Your task to perform on an android device: turn on bluetooth scan Image 0: 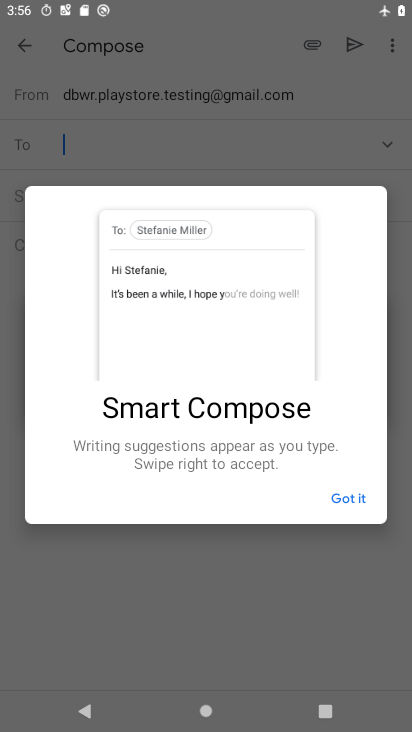
Step 0: press home button
Your task to perform on an android device: turn on bluetooth scan Image 1: 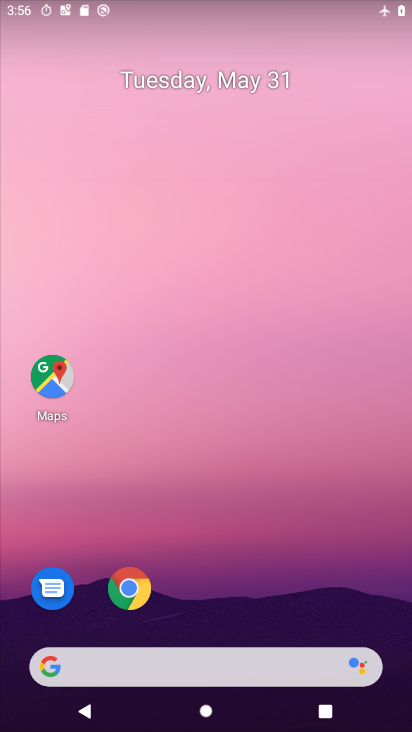
Step 1: drag from (289, 588) to (342, 124)
Your task to perform on an android device: turn on bluetooth scan Image 2: 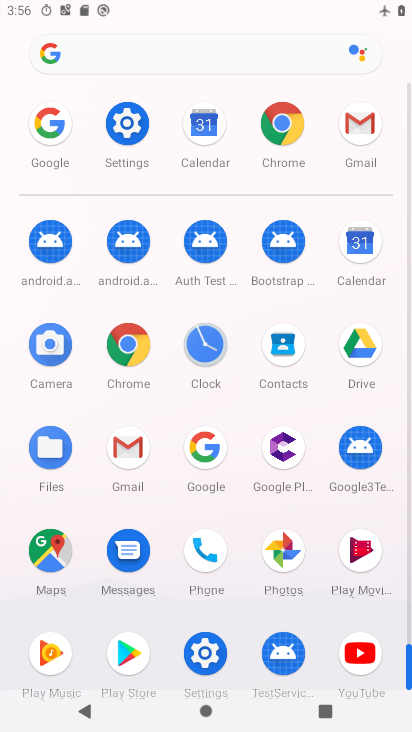
Step 2: click (137, 129)
Your task to perform on an android device: turn on bluetooth scan Image 3: 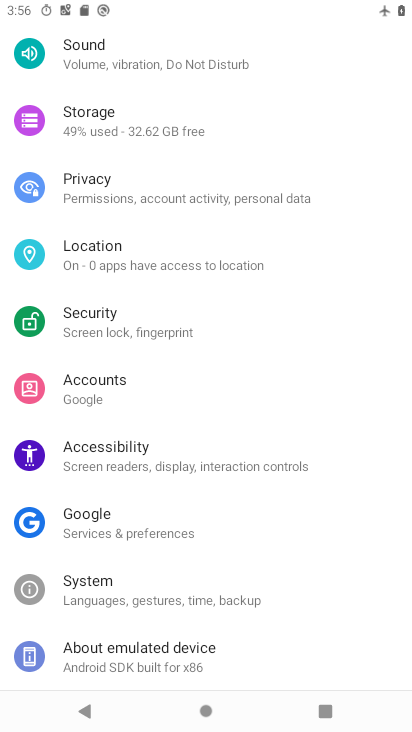
Step 3: click (210, 546)
Your task to perform on an android device: turn on bluetooth scan Image 4: 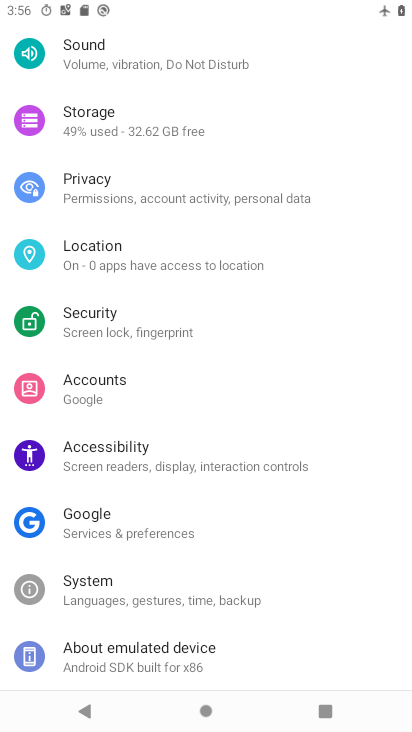
Step 4: drag from (155, 319) to (104, 608)
Your task to perform on an android device: turn on bluetooth scan Image 5: 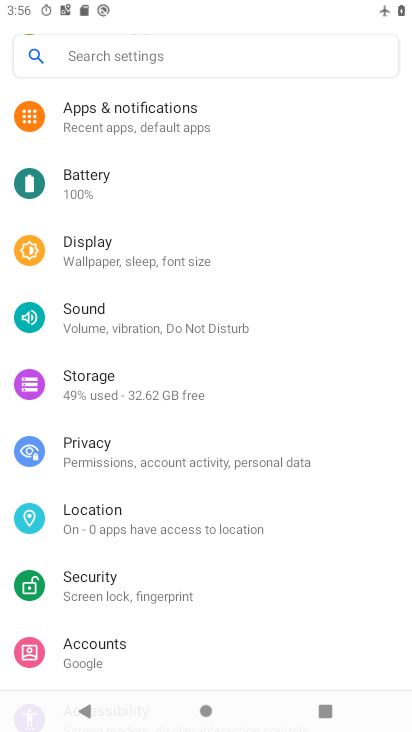
Step 5: drag from (134, 387) to (115, 514)
Your task to perform on an android device: turn on bluetooth scan Image 6: 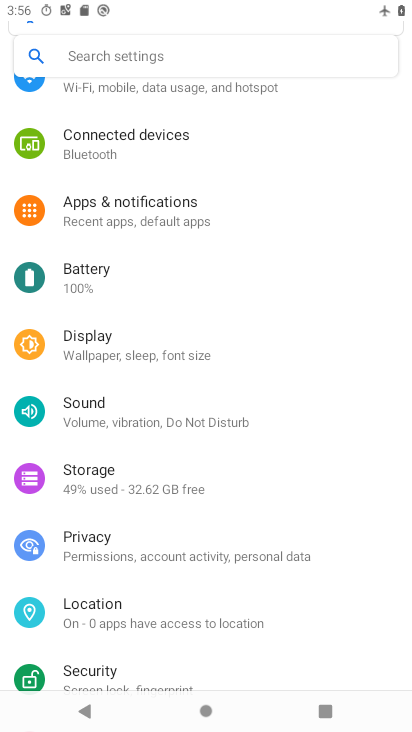
Step 6: drag from (145, 317) to (145, 471)
Your task to perform on an android device: turn on bluetooth scan Image 7: 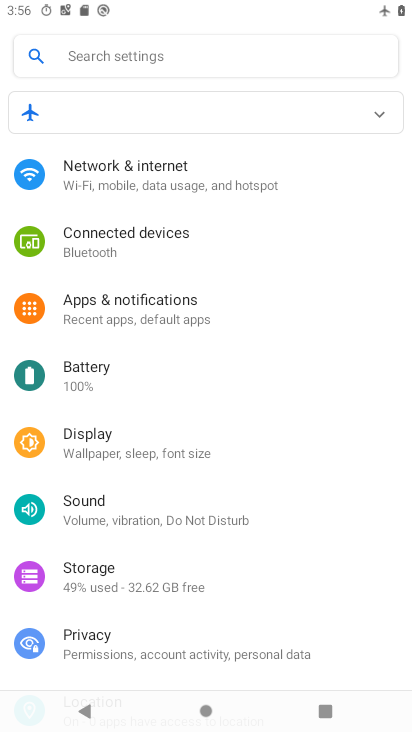
Step 7: click (178, 244)
Your task to perform on an android device: turn on bluetooth scan Image 8: 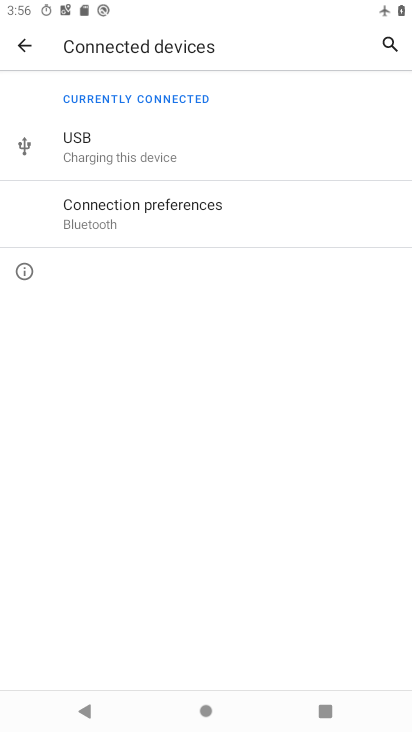
Step 8: click (176, 213)
Your task to perform on an android device: turn on bluetooth scan Image 9: 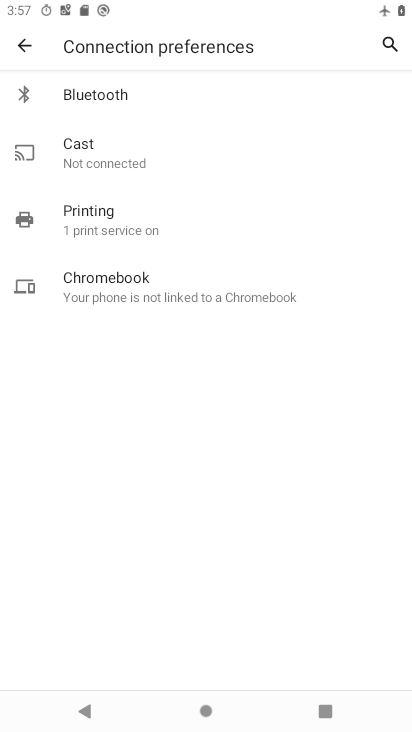
Step 9: click (142, 97)
Your task to perform on an android device: turn on bluetooth scan Image 10: 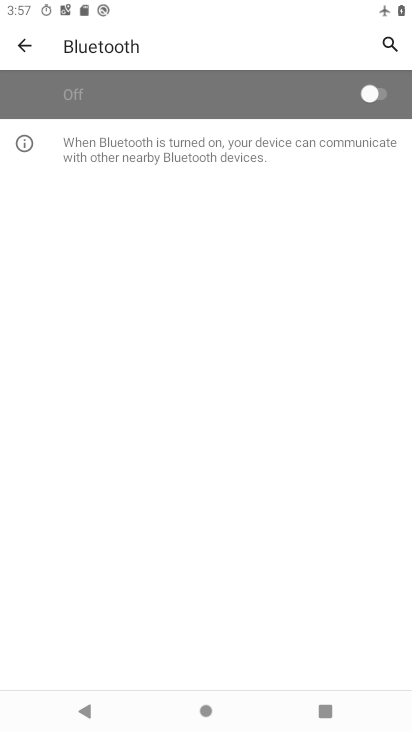
Step 10: click (393, 92)
Your task to perform on an android device: turn on bluetooth scan Image 11: 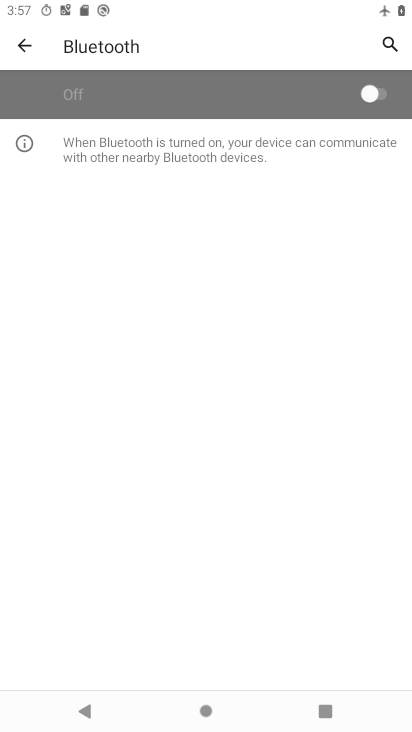
Step 11: click (397, 92)
Your task to perform on an android device: turn on bluetooth scan Image 12: 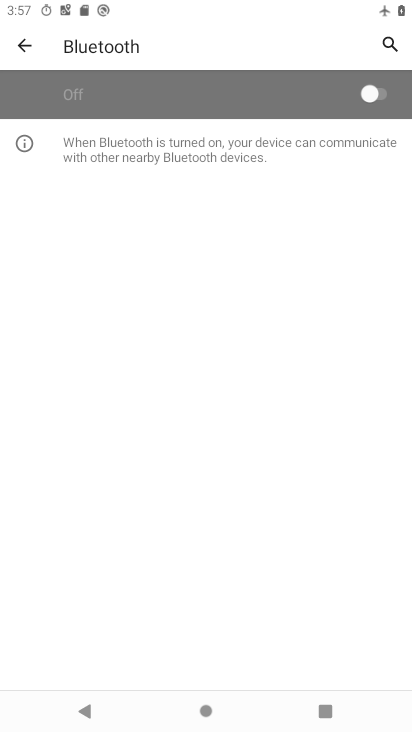
Step 12: task complete